Your task to perform on an android device: turn off airplane mode Image 0: 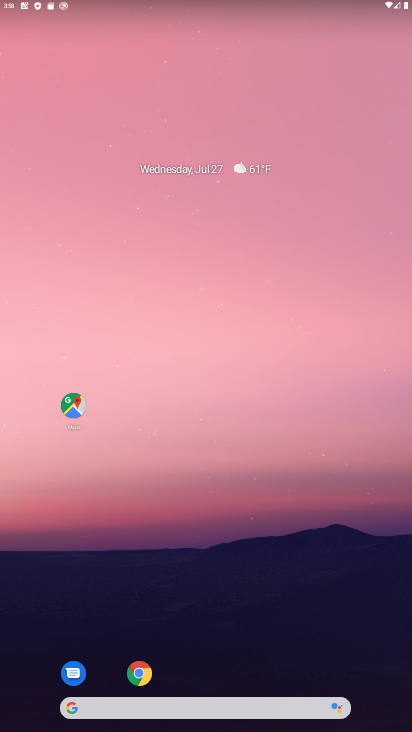
Step 0: drag from (331, 4) to (363, 504)
Your task to perform on an android device: turn off airplane mode Image 1: 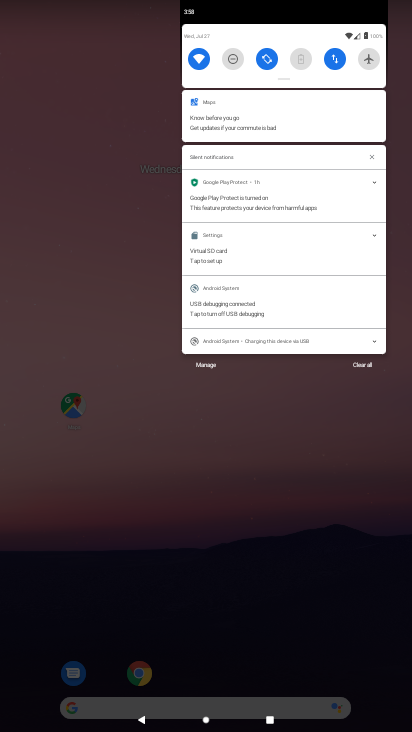
Step 1: task complete